Your task to perform on an android device: Show me popular games on the Play Store Image 0: 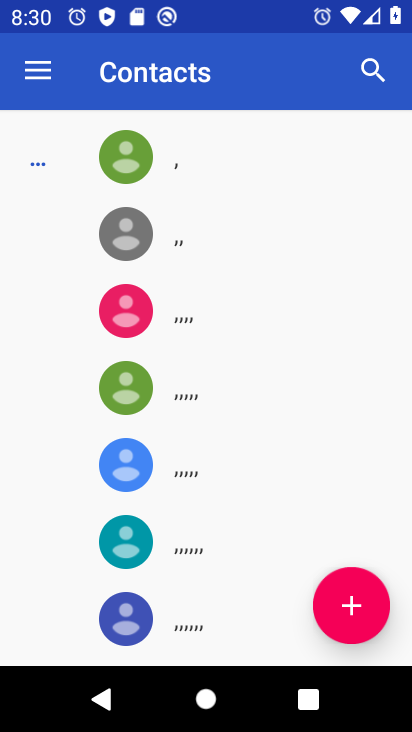
Step 0: press home button
Your task to perform on an android device: Show me popular games on the Play Store Image 1: 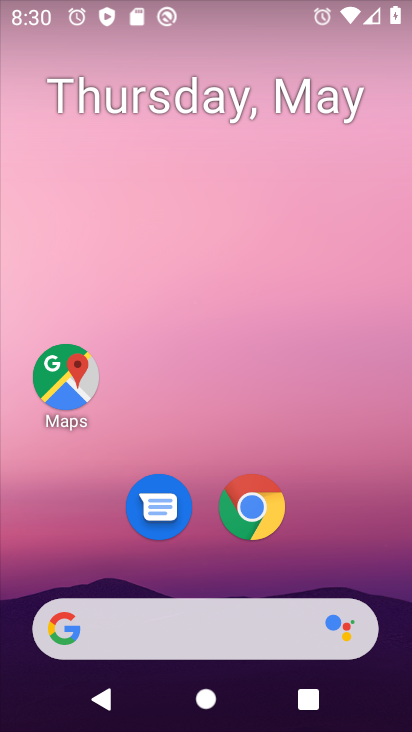
Step 1: drag from (191, 603) to (163, 25)
Your task to perform on an android device: Show me popular games on the Play Store Image 2: 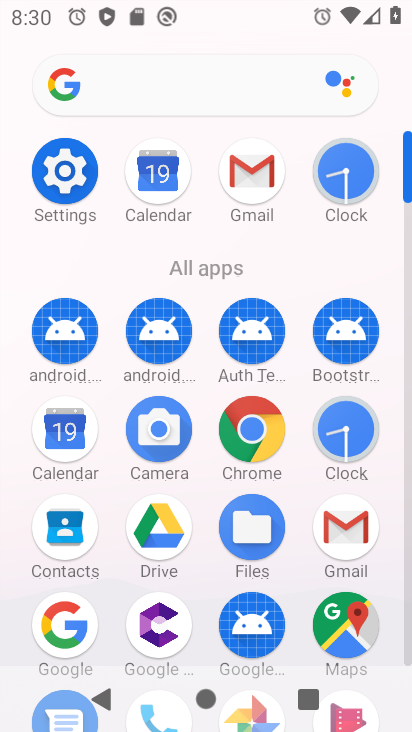
Step 2: drag from (195, 563) to (216, 157)
Your task to perform on an android device: Show me popular games on the Play Store Image 3: 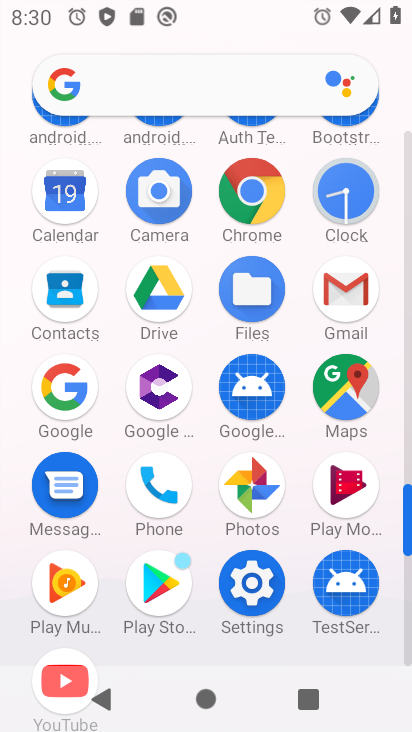
Step 3: click (158, 577)
Your task to perform on an android device: Show me popular games on the Play Store Image 4: 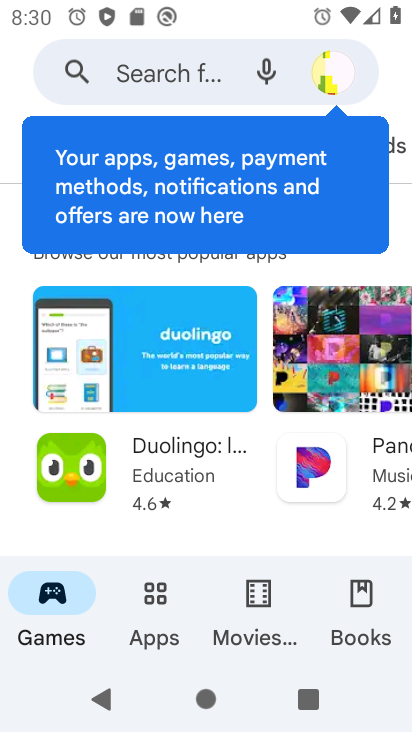
Step 4: click (403, 86)
Your task to perform on an android device: Show me popular games on the Play Store Image 5: 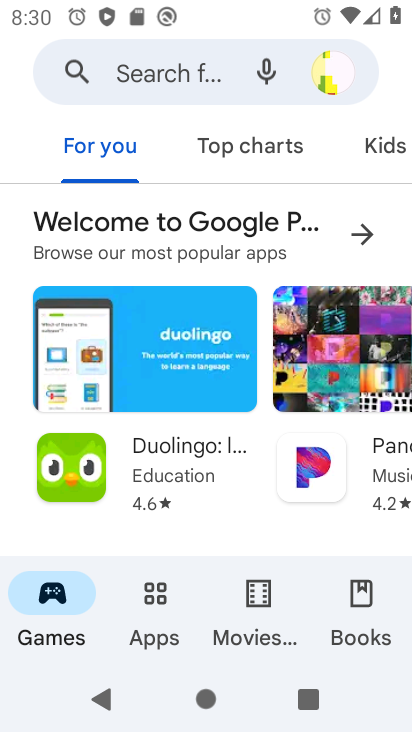
Step 5: click (253, 140)
Your task to perform on an android device: Show me popular games on the Play Store Image 6: 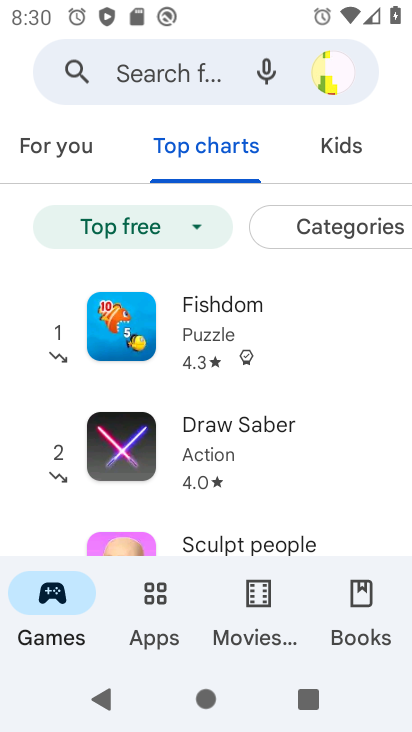
Step 6: task complete